Your task to perform on an android device: check storage Image 0: 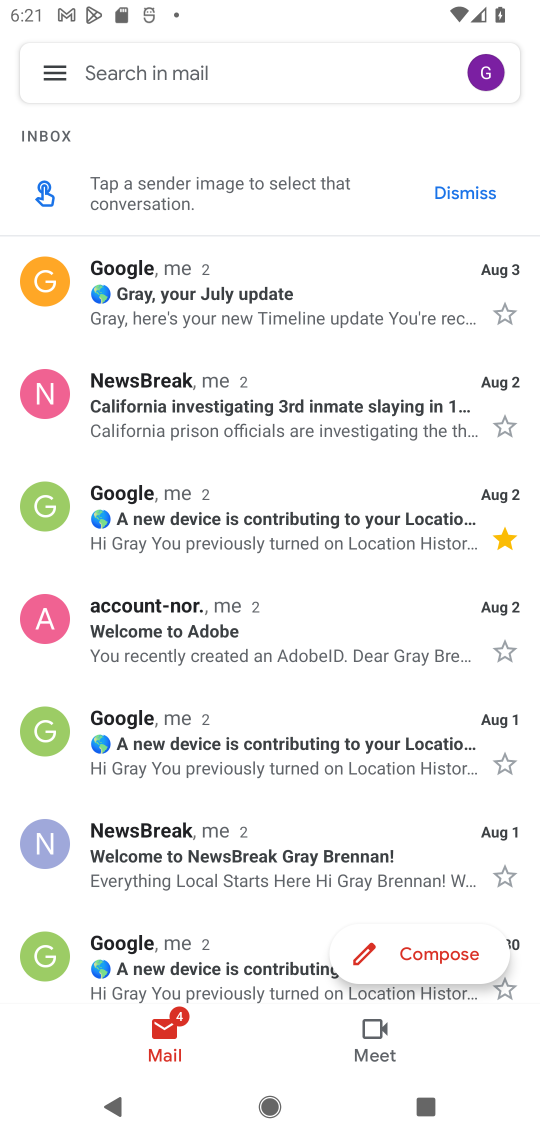
Step 0: press home button
Your task to perform on an android device: check storage Image 1: 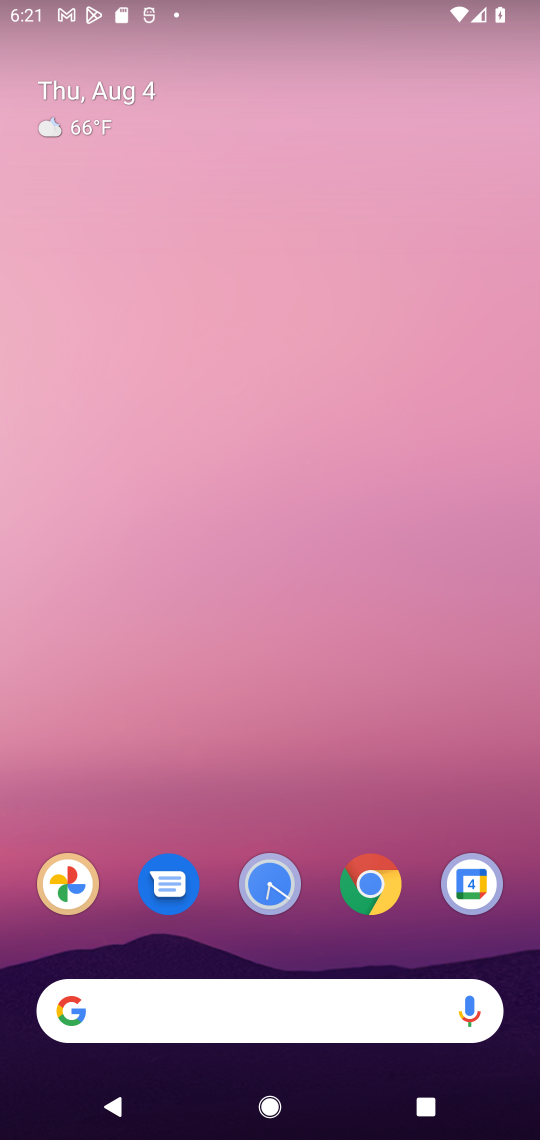
Step 1: drag from (322, 977) to (350, 126)
Your task to perform on an android device: check storage Image 2: 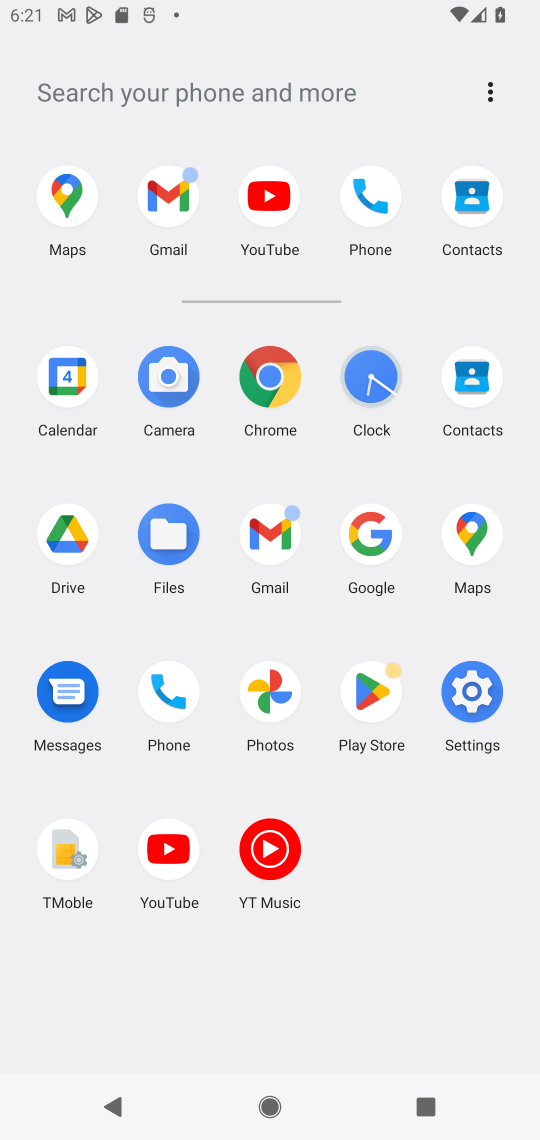
Step 2: click (476, 738)
Your task to perform on an android device: check storage Image 3: 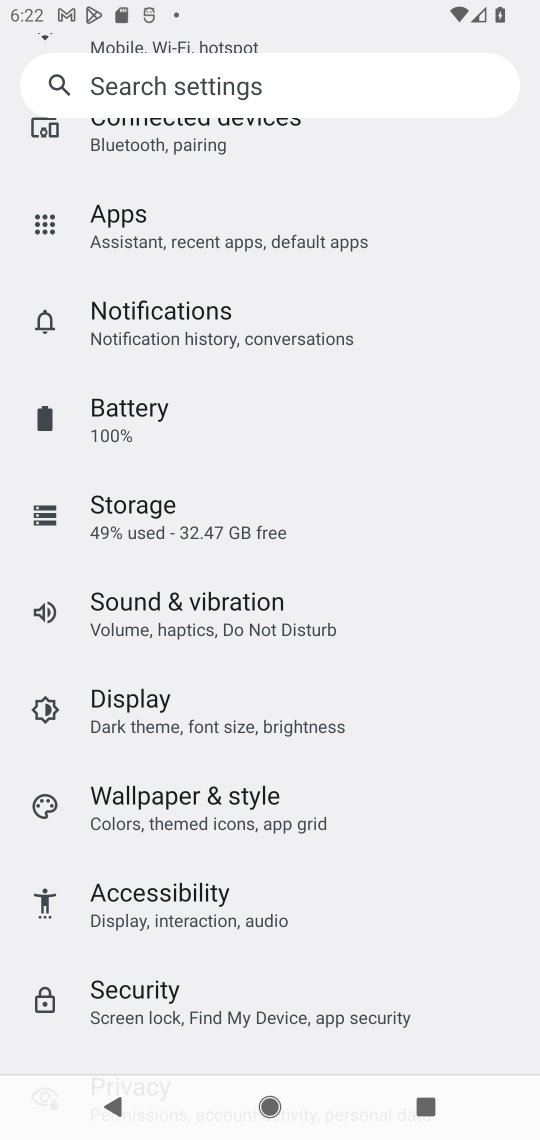
Step 3: click (140, 543)
Your task to perform on an android device: check storage Image 4: 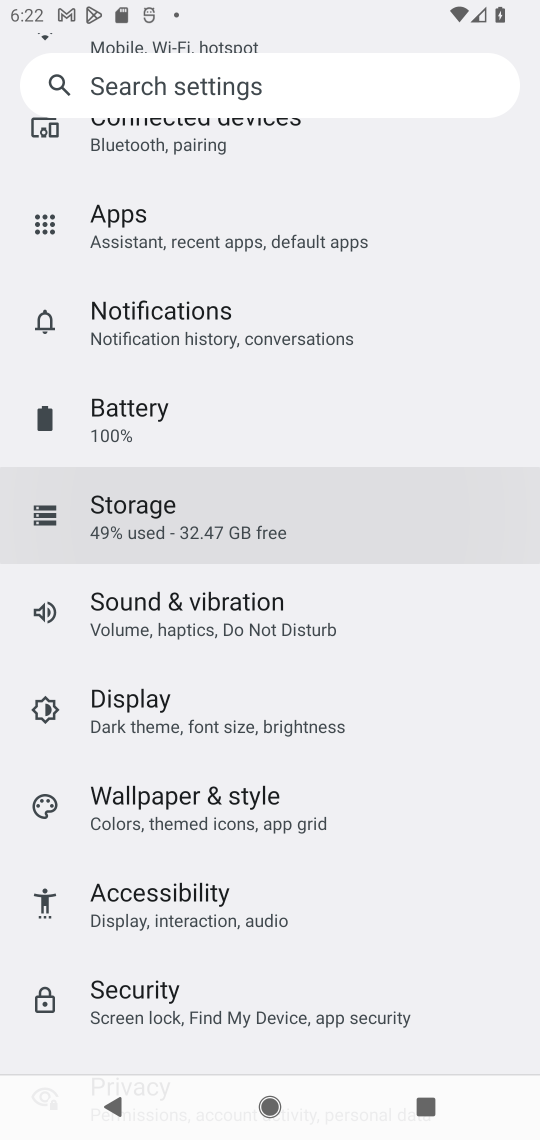
Step 4: task complete